Your task to perform on an android device: allow cookies in the chrome app Image 0: 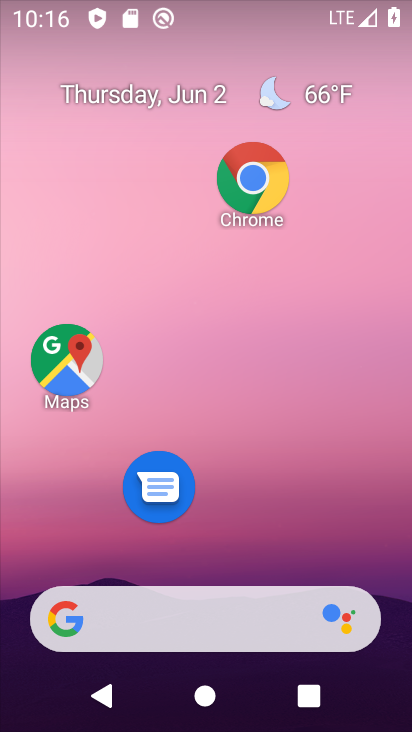
Step 0: click (249, 179)
Your task to perform on an android device: allow cookies in the chrome app Image 1: 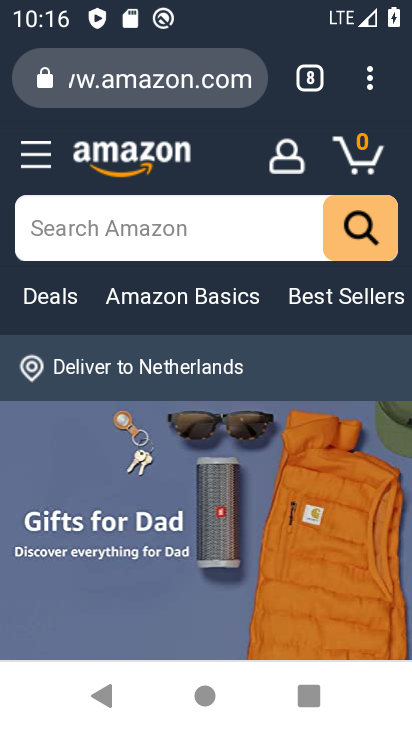
Step 1: click (371, 85)
Your task to perform on an android device: allow cookies in the chrome app Image 2: 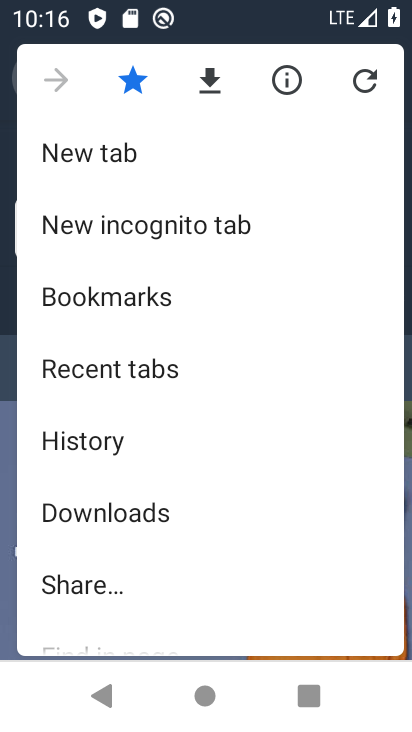
Step 2: drag from (149, 613) to (151, 265)
Your task to perform on an android device: allow cookies in the chrome app Image 3: 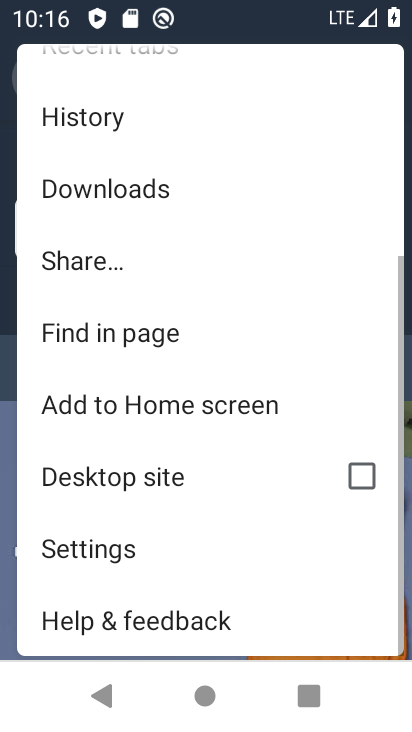
Step 3: click (114, 552)
Your task to perform on an android device: allow cookies in the chrome app Image 4: 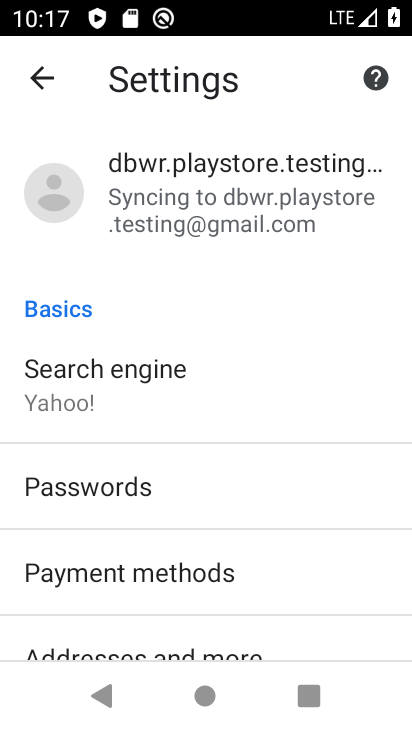
Step 4: drag from (131, 644) to (151, 234)
Your task to perform on an android device: allow cookies in the chrome app Image 5: 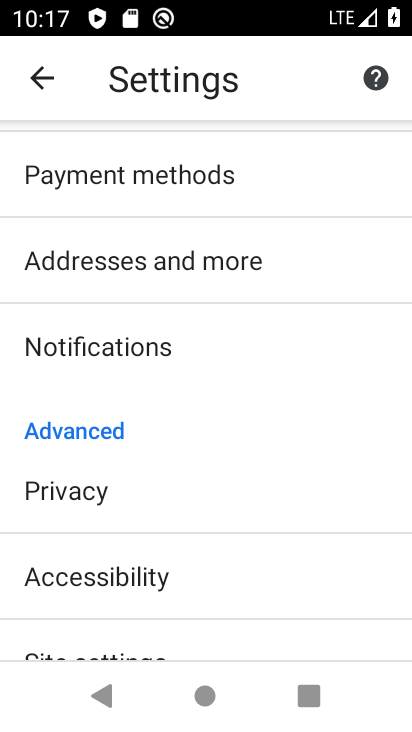
Step 5: drag from (119, 624) to (122, 295)
Your task to perform on an android device: allow cookies in the chrome app Image 6: 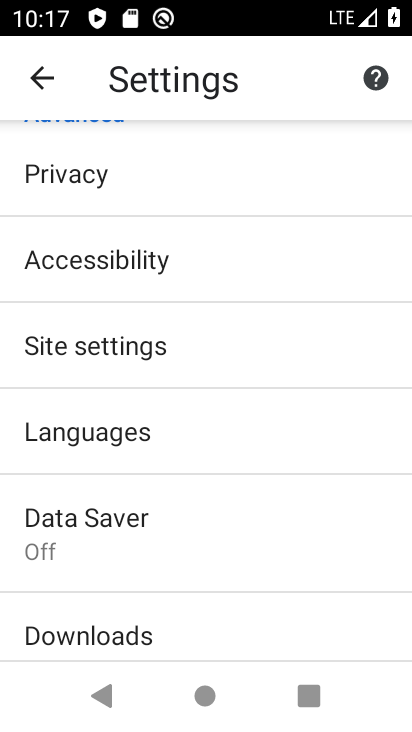
Step 6: click (90, 349)
Your task to perform on an android device: allow cookies in the chrome app Image 7: 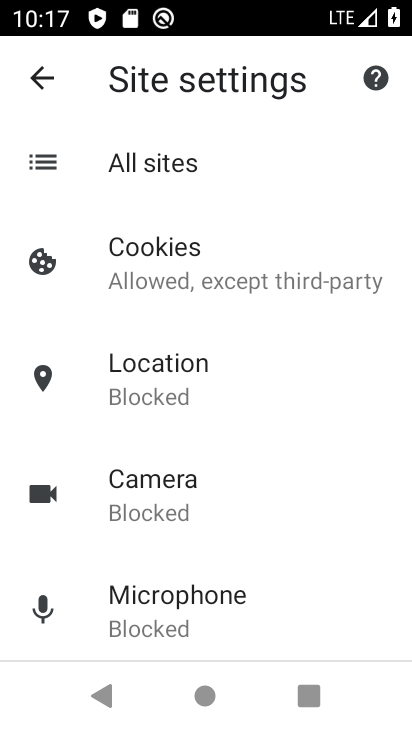
Step 7: click (200, 273)
Your task to perform on an android device: allow cookies in the chrome app Image 8: 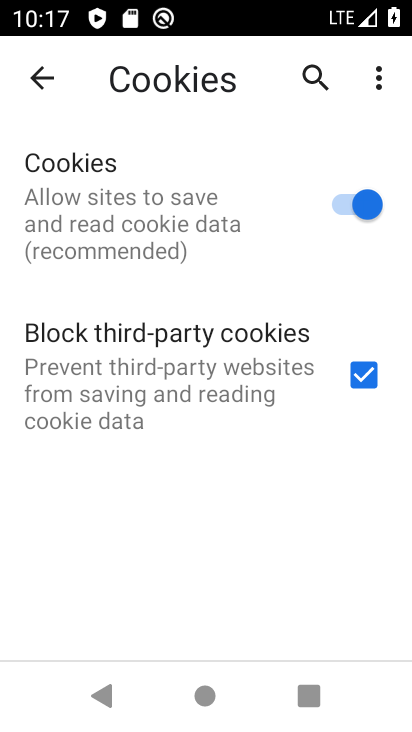
Step 8: task complete